Your task to perform on an android device: choose inbox layout in the gmail app Image 0: 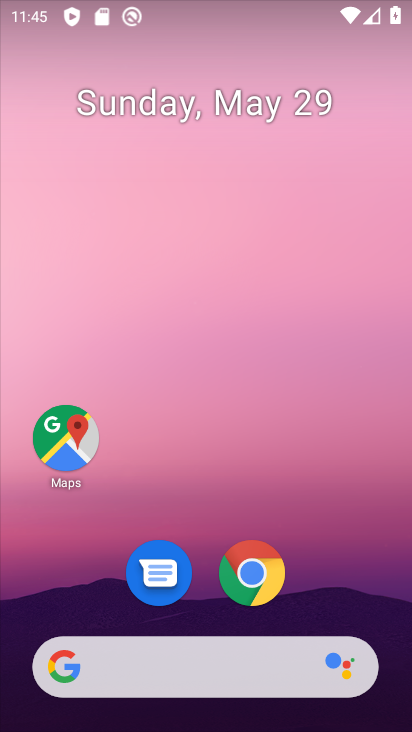
Step 0: drag from (206, 664) to (188, 54)
Your task to perform on an android device: choose inbox layout in the gmail app Image 1: 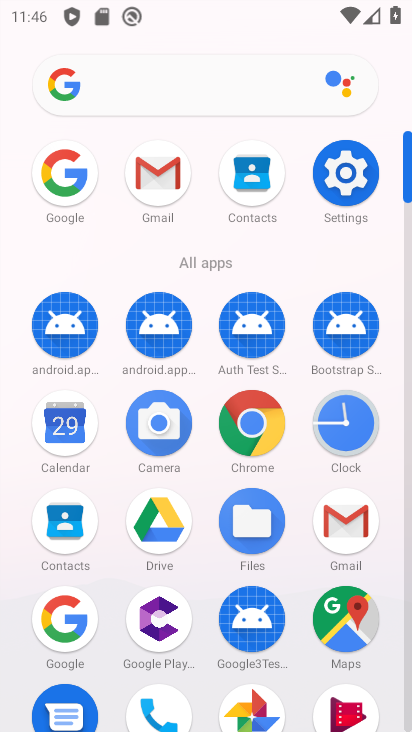
Step 1: click (348, 522)
Your task to perform on an android device: choose inbox layout in the gmail app Image 2: 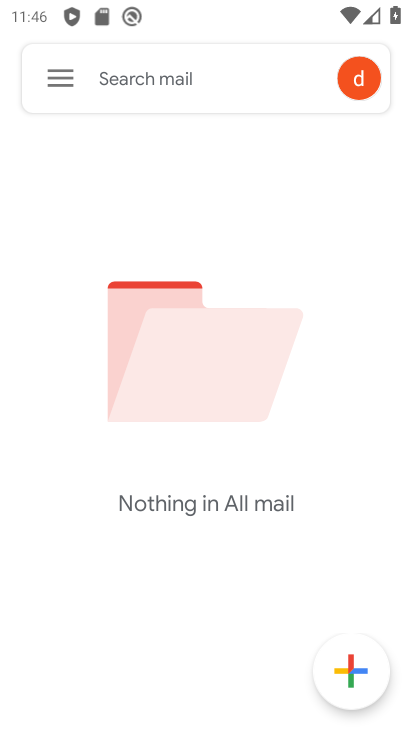
Step 2: click (59, 53)
Your task to perform on an android device: choose inbox layout in the gmail app Image 3: 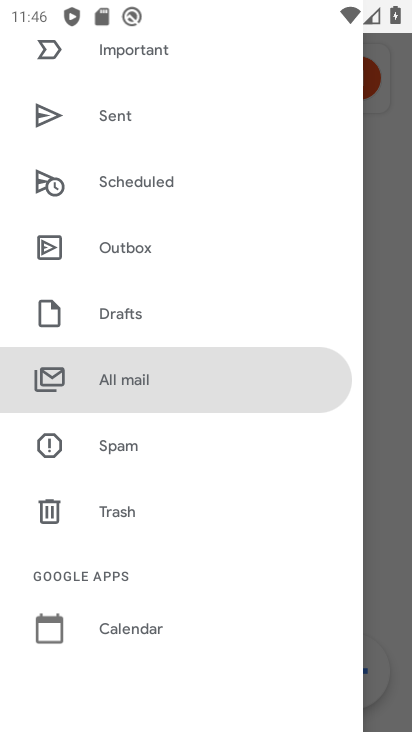
Step 3: drag from (172, 628) to (166, 19)
Your task to perform on an android device: choose inbox layout in the gmail app Image 4: 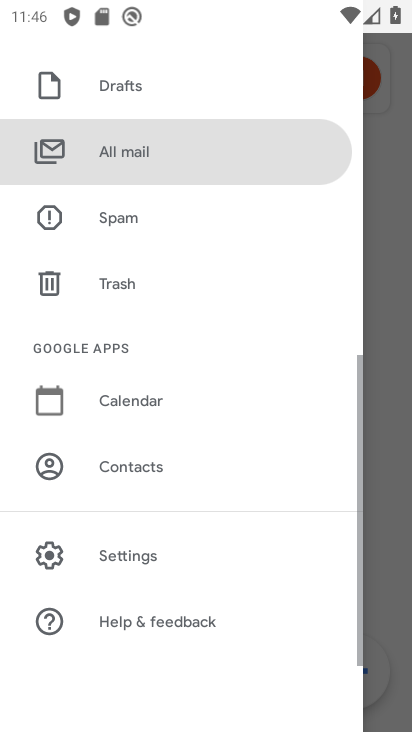
Step 4: click (109, 567)
Your task to perform on an android device: choose inbox layout in the gmail app Image 5: 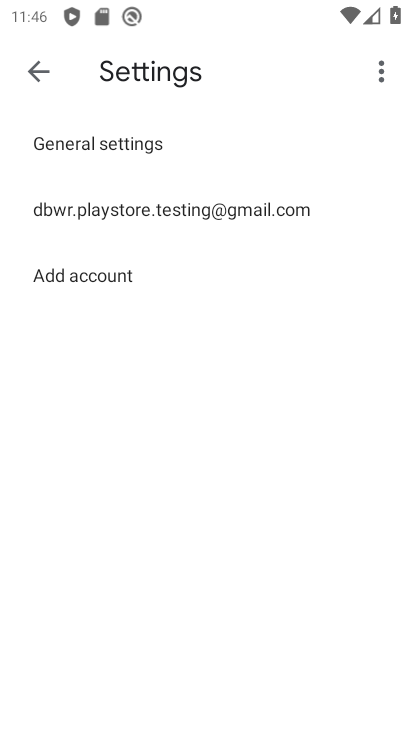
Step 5: click (165, 220)
Your task to perform on an android device: choose inbox layout in the gmail app Image 6: 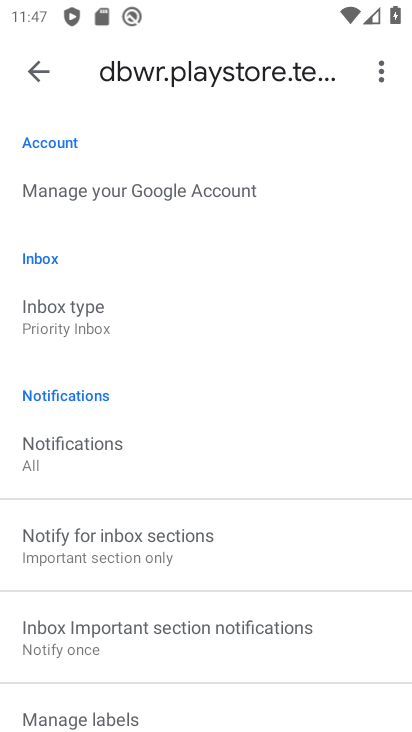
Step 6: click (67, 335)
Your task to perform on an android device: choose inbox layout in the gmail app Image 7: 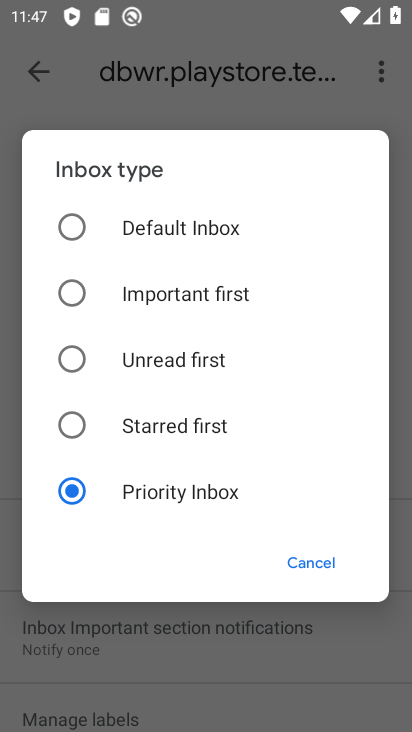
Step 7: click (132, 231)
Your task to perform on an android device: choose inbox layout in the gmail app Image 8: 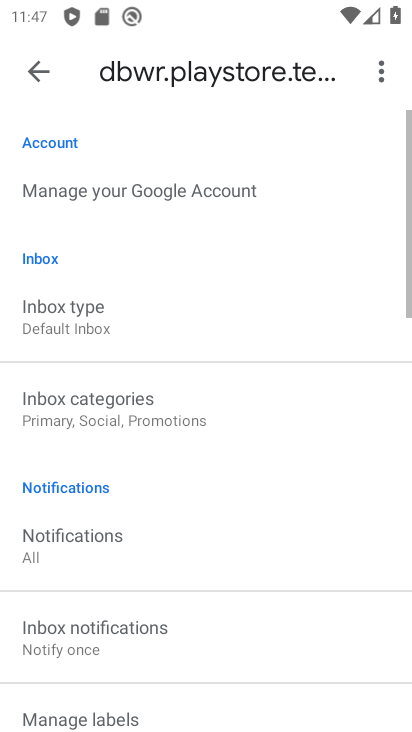
Step 8: task complete